Your task to perform on an android device: open a new tab in the chrome app Image 0: 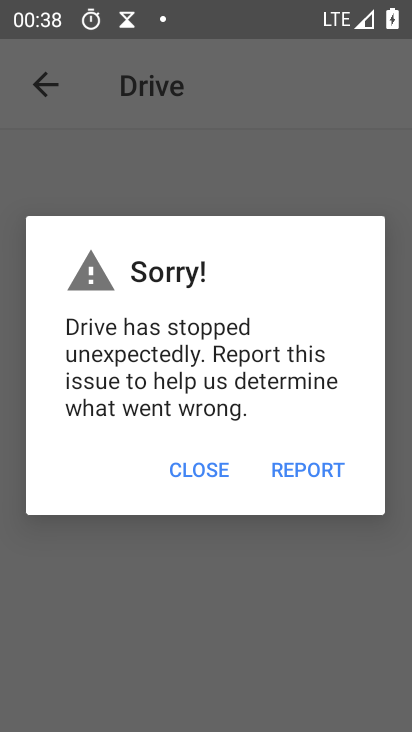
Step 0: press home button
Your task to perform on an android device: open a new tab in the chrome app Image 1: 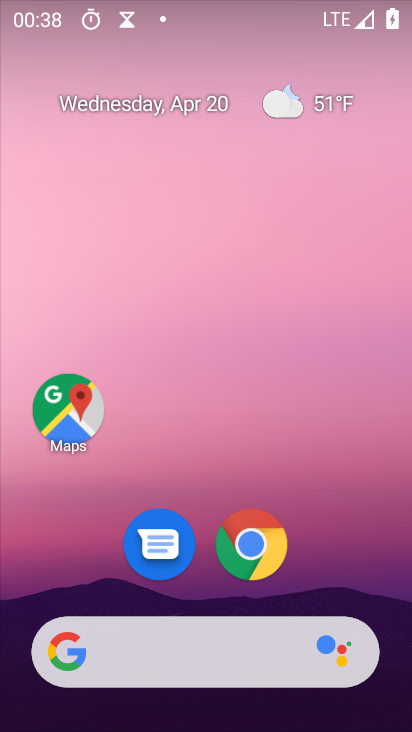
Step 1: click (250, 546)
Your task to perform on an android device: open a new tab in the chrome app Image 2: 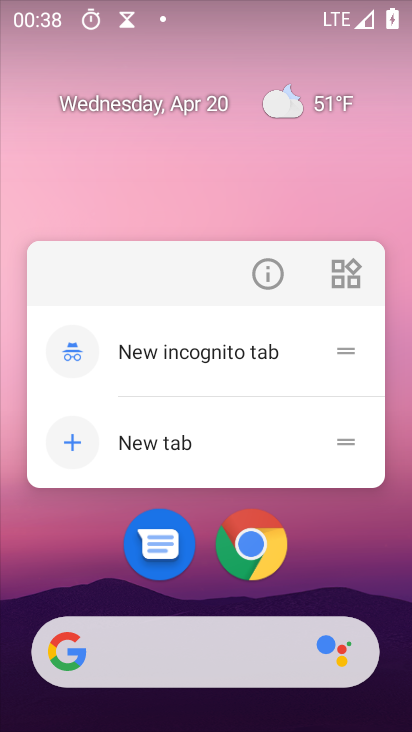
Step 2: click (249, 545)
Your task to perform on an android device: open a new tab in the chrome app Image 3: 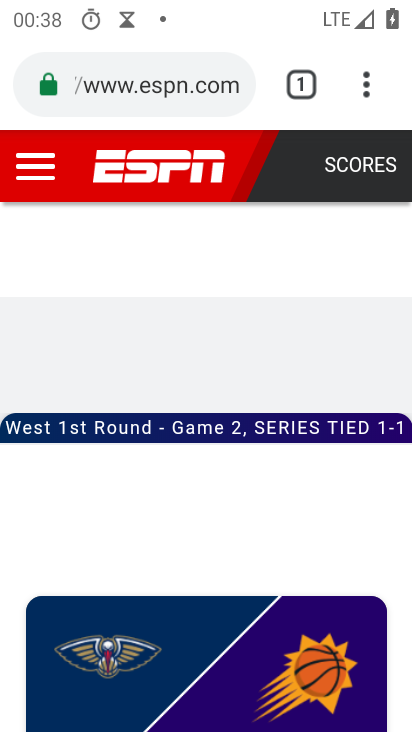
Step 3: click (376, 88)
Your task to perform on an android device: open a new tab in the chrome app Image 4: 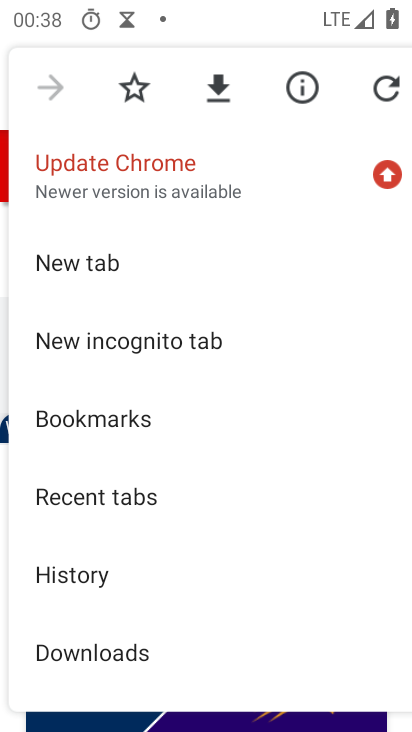
Step 4: click (119, 283)
Your task to perform on an android device: open a new tab in the chrome app Image 5: 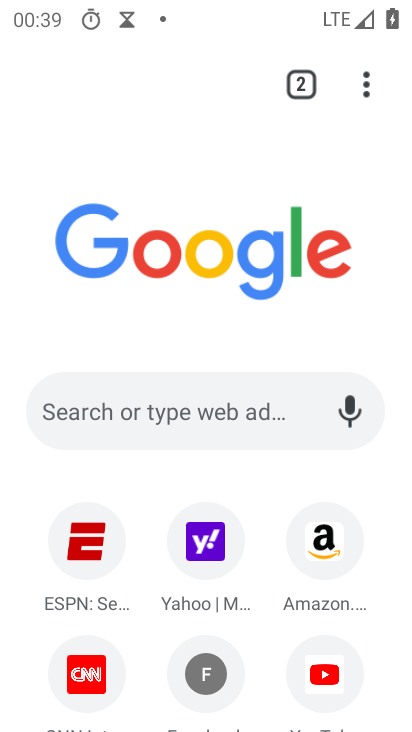
Step 5: task complete